Your task to perform on an android device: Open Yahoo.com Image 0: 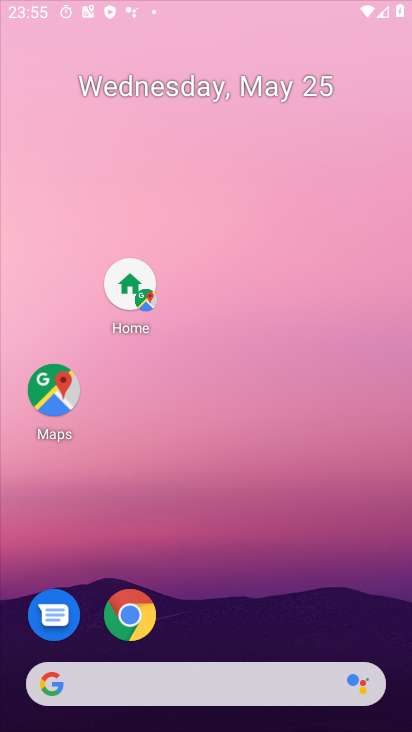
Step 0: press home button
Your task to perform on an android device: Open Yahoo.com Image 1: 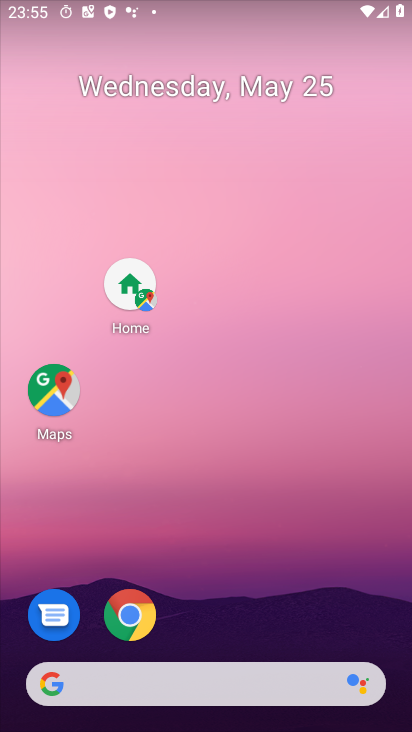
Step 1: click (43, 692)
Your task to perform on an android device: Open Yahoo.com Image 2: 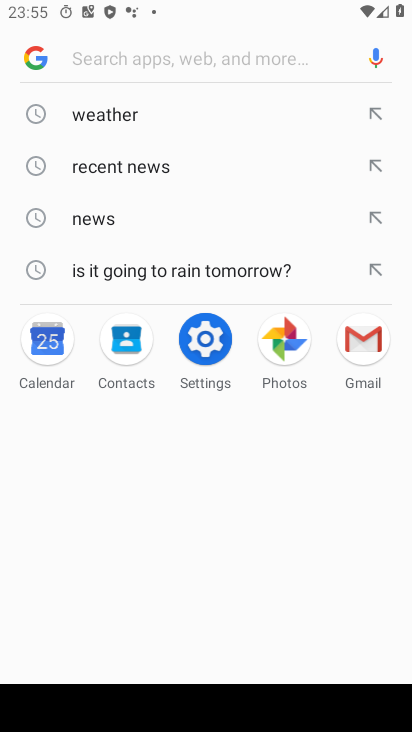
Step 2: type "Yahoo.com"
Your task to perform on an android device: Open Yahoo.com Image 3: 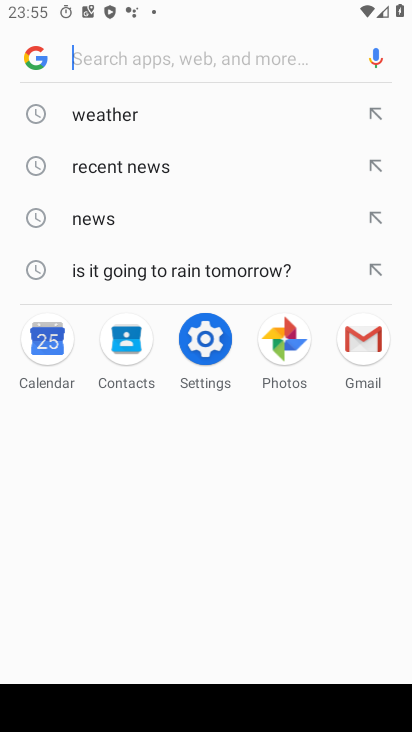
Step 3: click (149, 44)
Your task to perform on an android device: Open Yahoo.com Image 4: 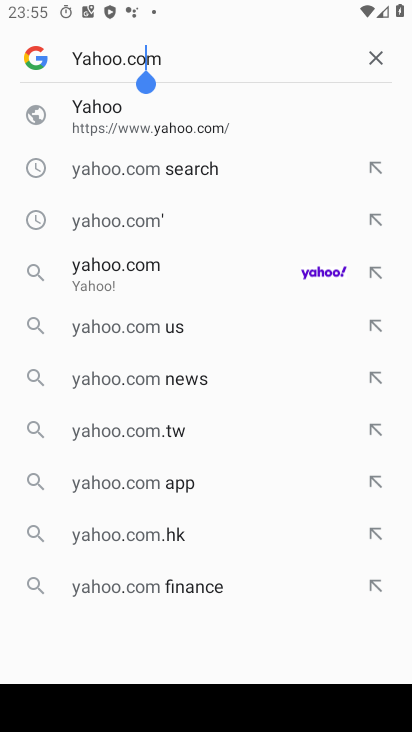
Step 4: click (90, 123)
Your task to perform on an android device: Open Yahoo.com Image 5: 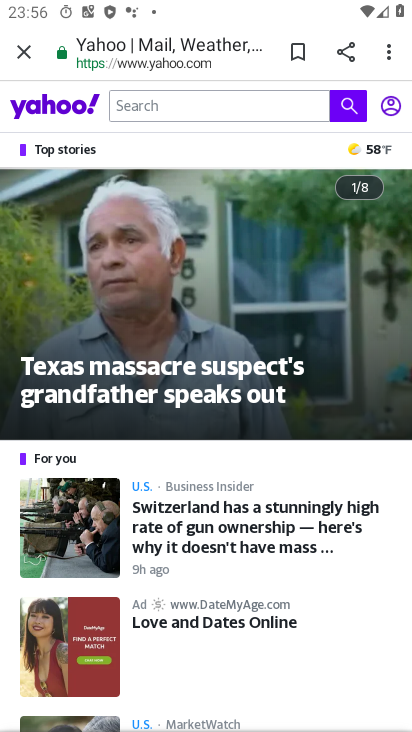
Step 5: task complete